Your task to perform on an android device: Open the stopwatch Image 0: 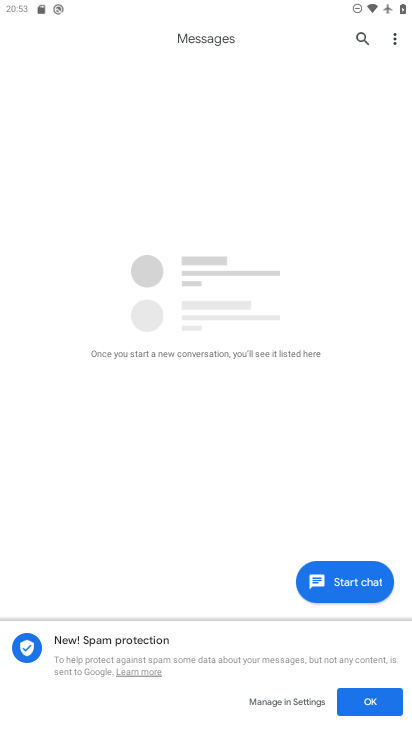
Step 0: press home button
Your task to perform on an android device: Open the stopwatch Image 1: 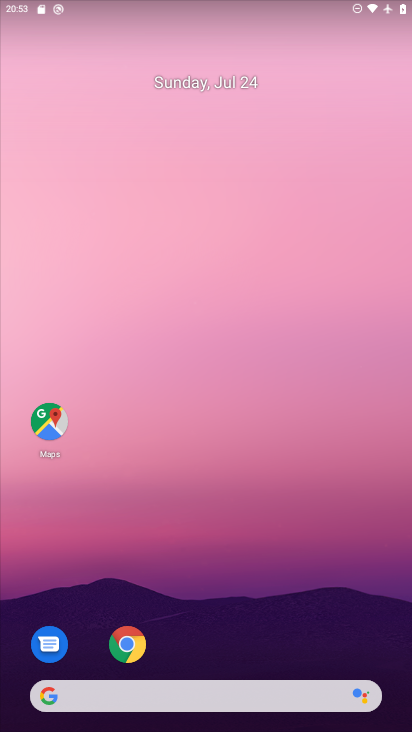
Step 1: drag from (371, 639) to (287, 136)
Your task to perform on an android device: Open the stopwatch Image 2: 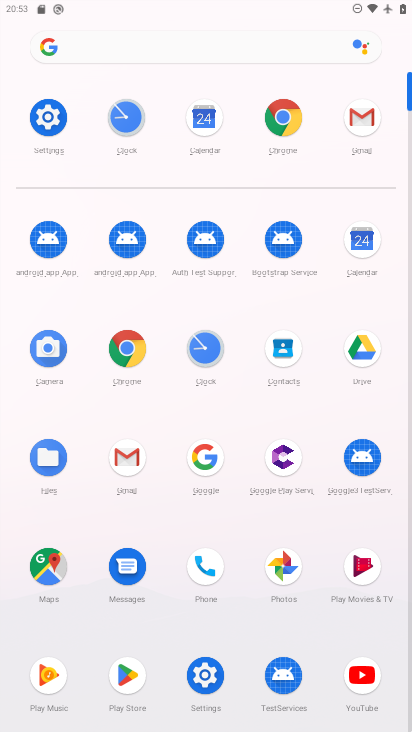
Step 2: click (204, 352)
Your task to perform on an android device: Open the stopwatch Image 3: 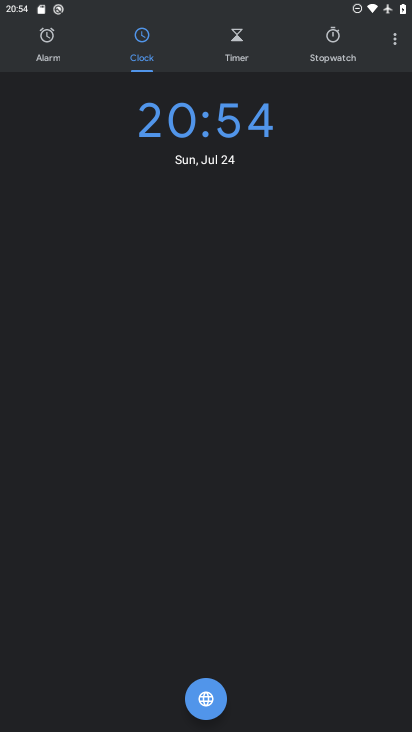
Step 3: click (334, 48)
Your task to perform on an android device: Open the stopwatch Image 4: 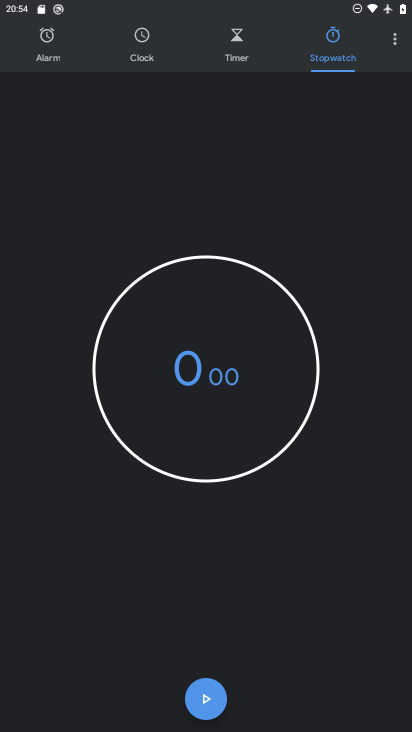
Step 4: task complete